Your task to perform on an android device: check the backup settings in the google photos Image 0: 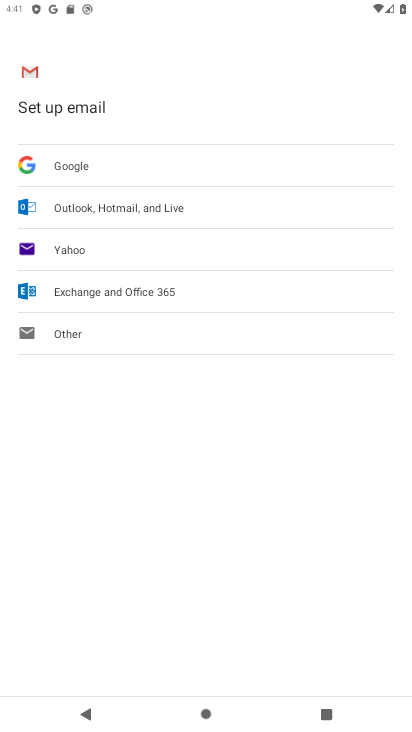
Step 0: press home button
Your task to perform on an android device: check the backup settings in the google photos Image 1: 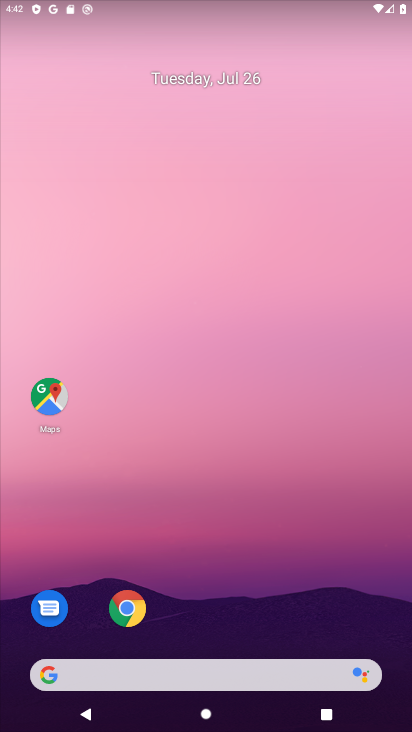
Step 1: drag from (226, 680) to (186, 389)
Your task to perform on an android device: check the backup settings in the google photos Image 2: 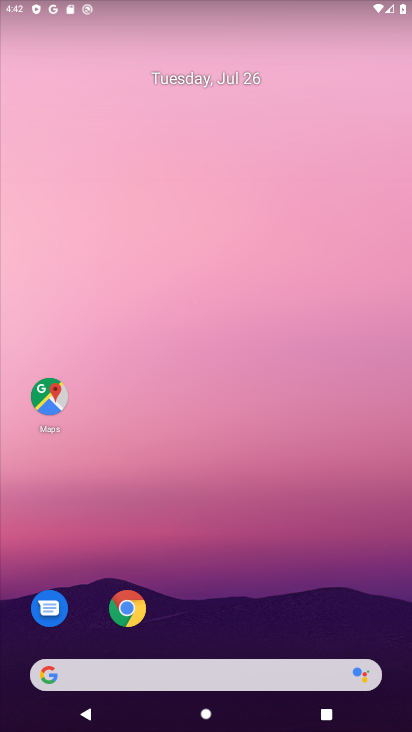
Step 2: drag from (220, 642) to (172, 156)
Your task to perform on an android device: check the backup settings in the google photos Image 3: 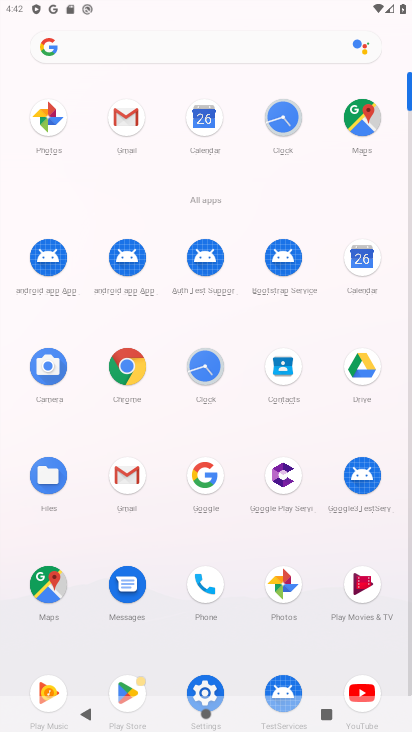
Step 3: click (280, 590)
Your task to perform on an android device: check the backup settings in the google photos Image 4: 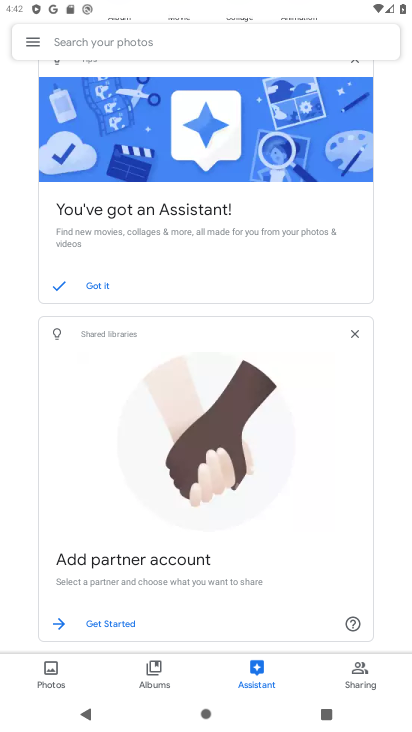
Step 4: click (30, 34)
Your task to perform on an android device: check the backup settings in the google photos Image 5: 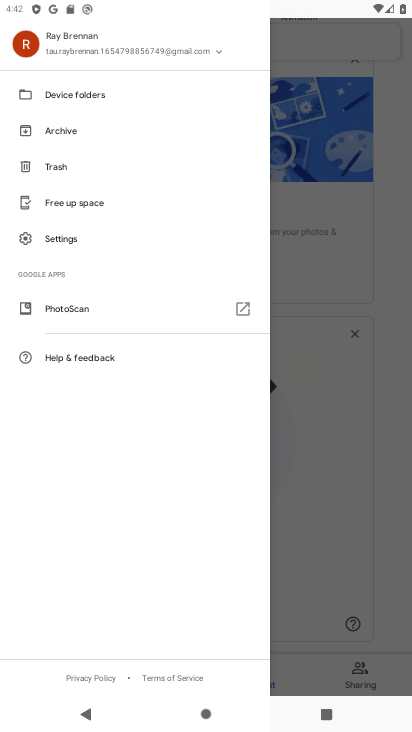
Step 5: click (57, 239)
Your task to perform on an android device: check the backup settings in the google photos Image 6: 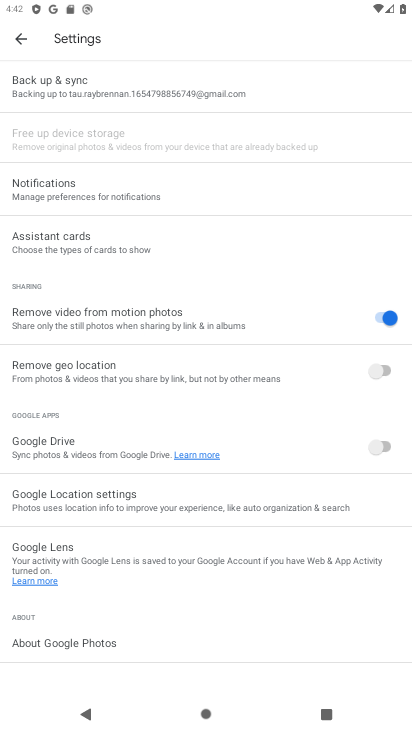
Step 6: click (50, 89)
Your task to perform on an android device: check the backup settings in the google photos Image 7: 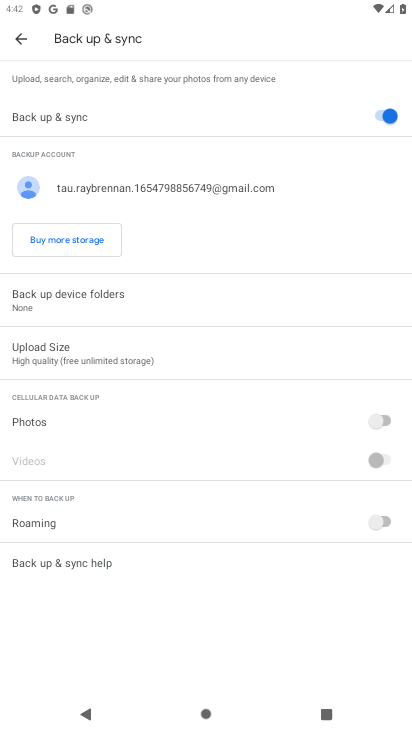
Step 7: task complete